Your task to perform on an android device: see sites visited before in the chrome app Image 0: 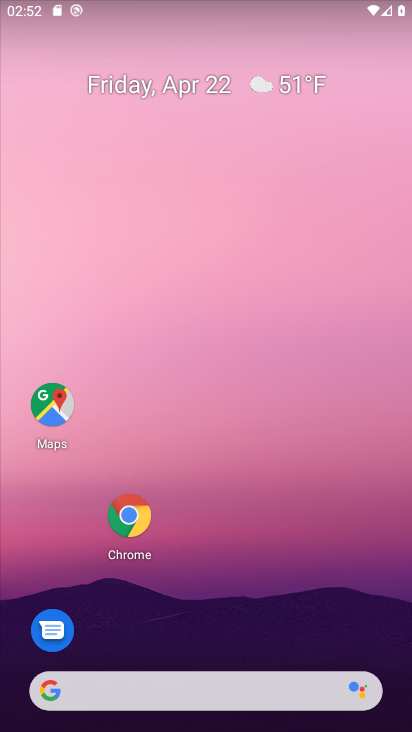
Step 0: click (135, 512)
Your task to perform on an android device: see sites visited before in the chrome app Image 1: 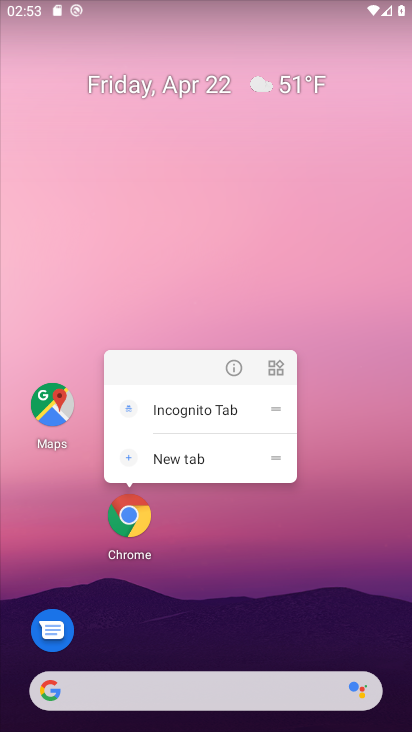
Step 1: click (135, 511)
Your task to perform on an android device: see sites visited before in the chrome app Image 2: 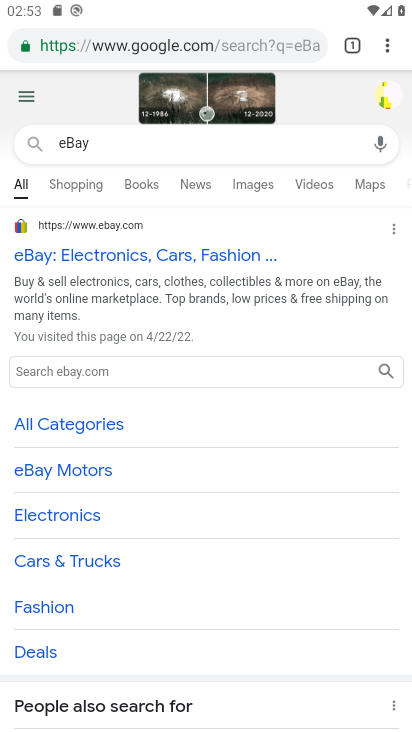
Step 2: click (384, 39)
Your task to perform on an android device: see sites visited before in the chrome app Image 3: 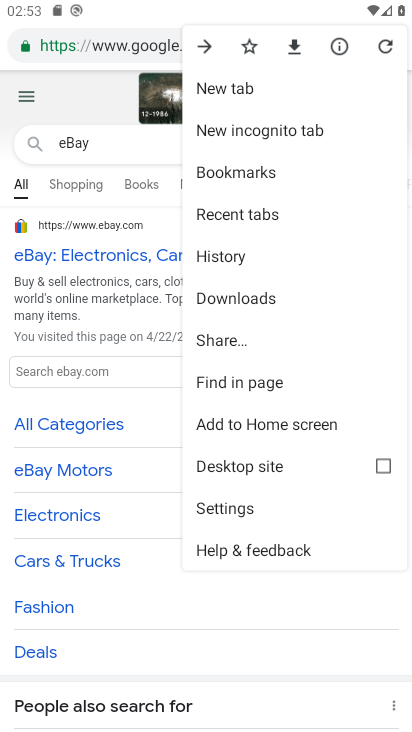
Step 3: click (224, 508)
Your task to perform on an android device: see sites visited before in the chrome app Image 4: 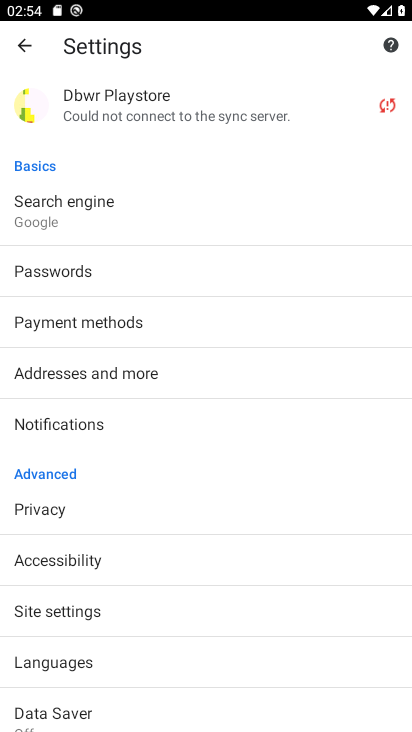
Step 4: click (20, 49)
Your task to perform on an android device: see sites visited before in the chrome app Image 5: 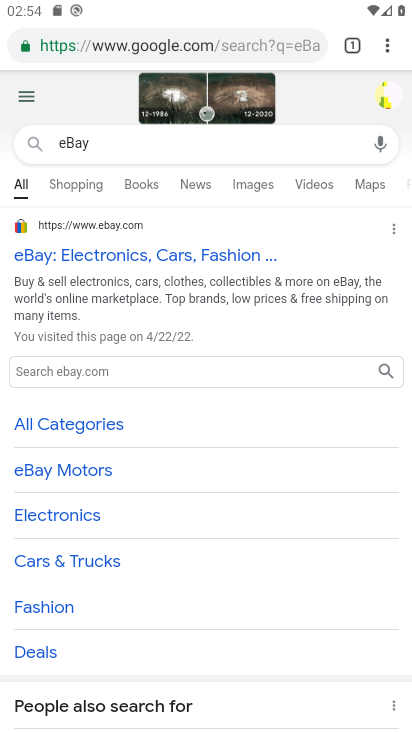
Step 5: click (388, 45)
Your task to perform on an android device: see sites visited before in the chrome app Image 6: 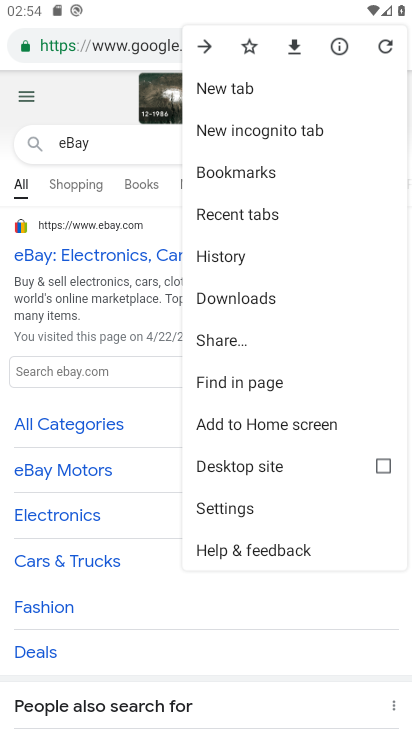
Step 6: click (233, 220)
Your task to perform on an android device: see sites visited before in the chrome app Image 7: 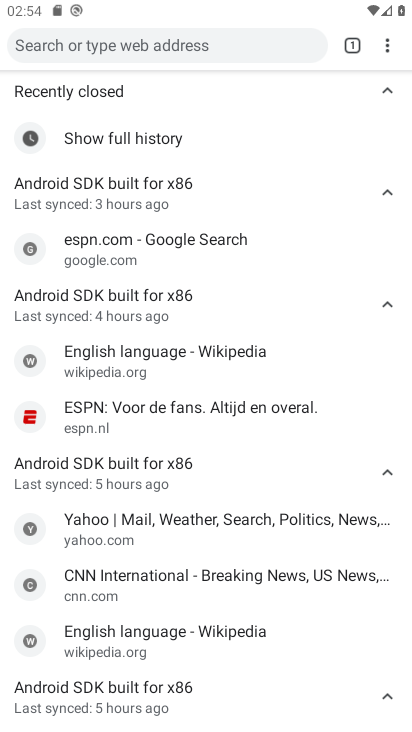
Step 7: task complete